Your task to perform on an android device: open app "Gmail" (install if not already installed) Image 0: 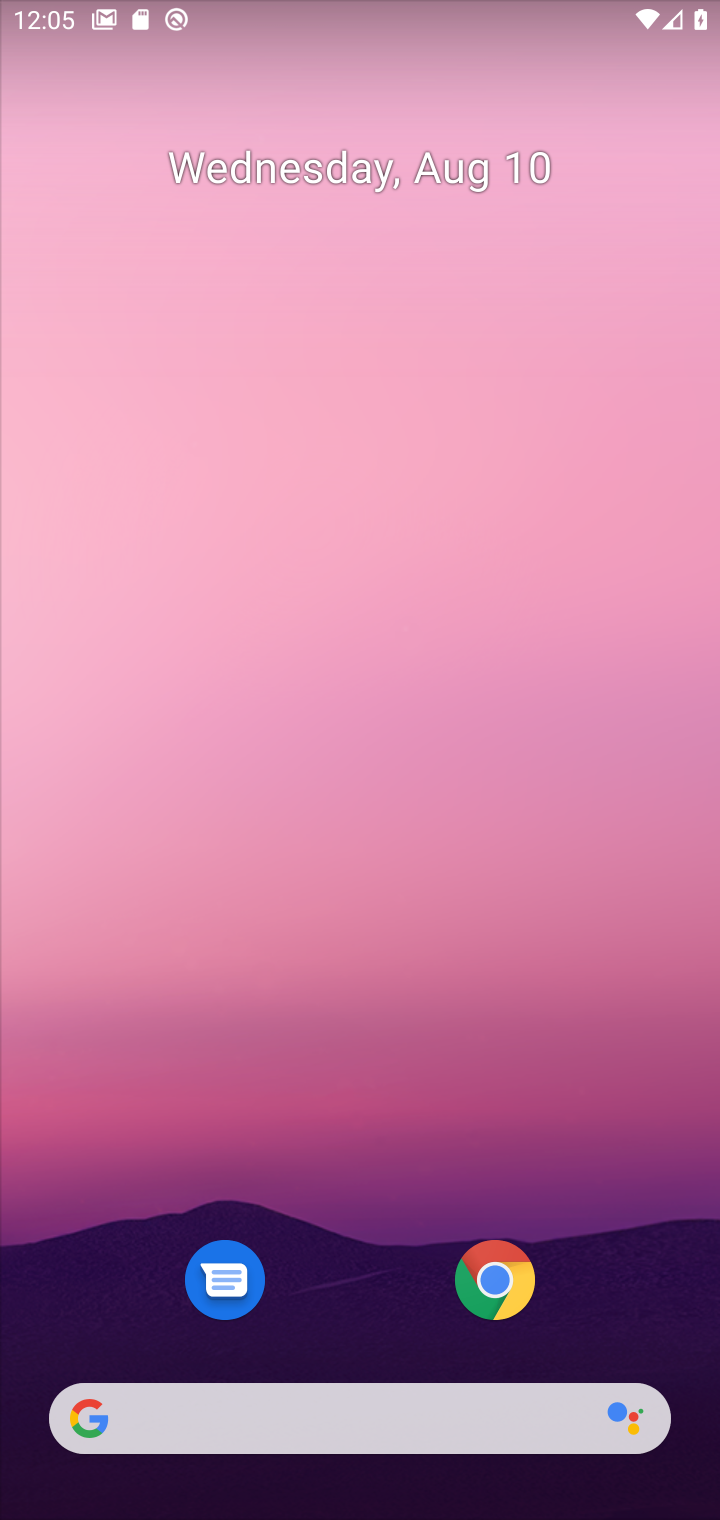
Step 0: drag from (335, 1355) to (597, 25)
Your task to perform on an android device: open app "Gmail" (install if not already installed) Image 1: 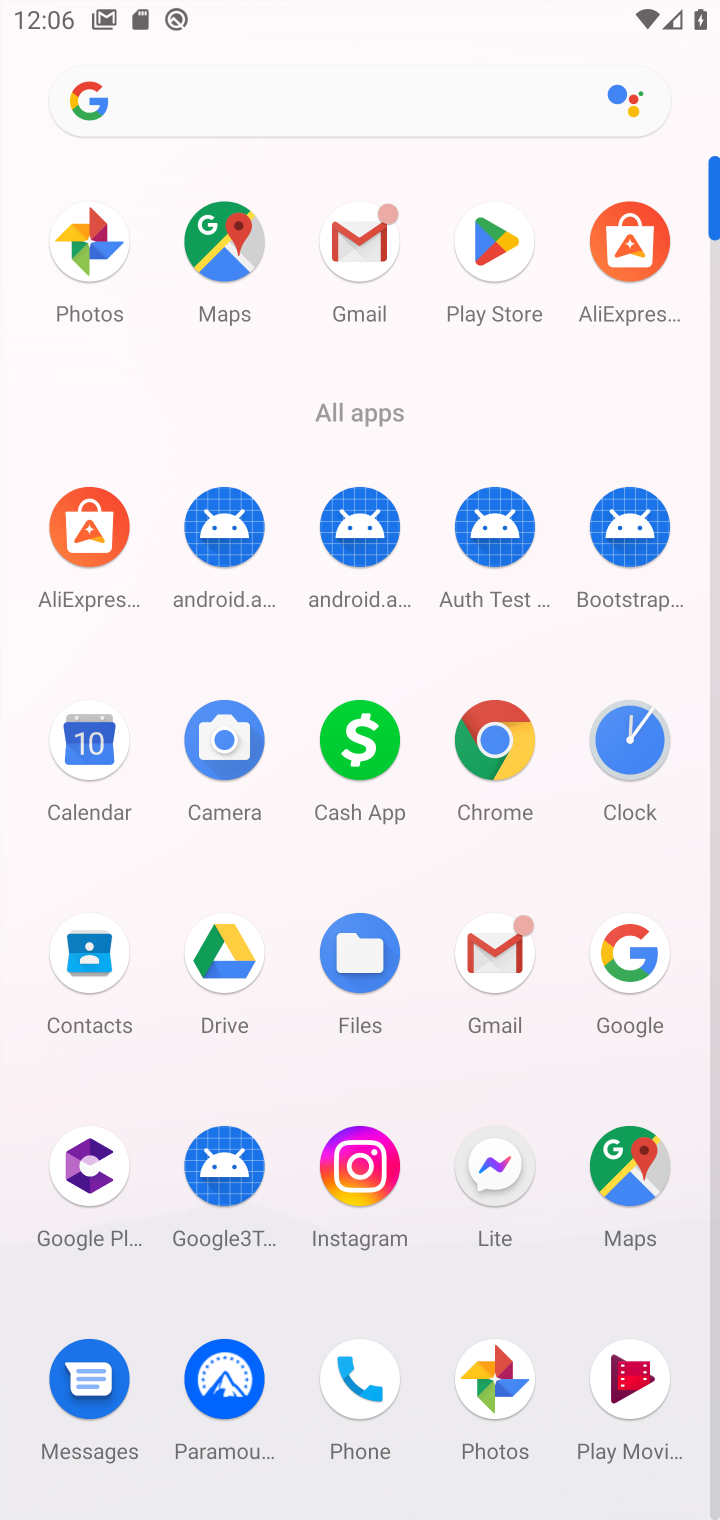
Step 1: click (361, 230)
Your task to perform on an android device: open app "Gmail" (install if not already installed) Image 2: 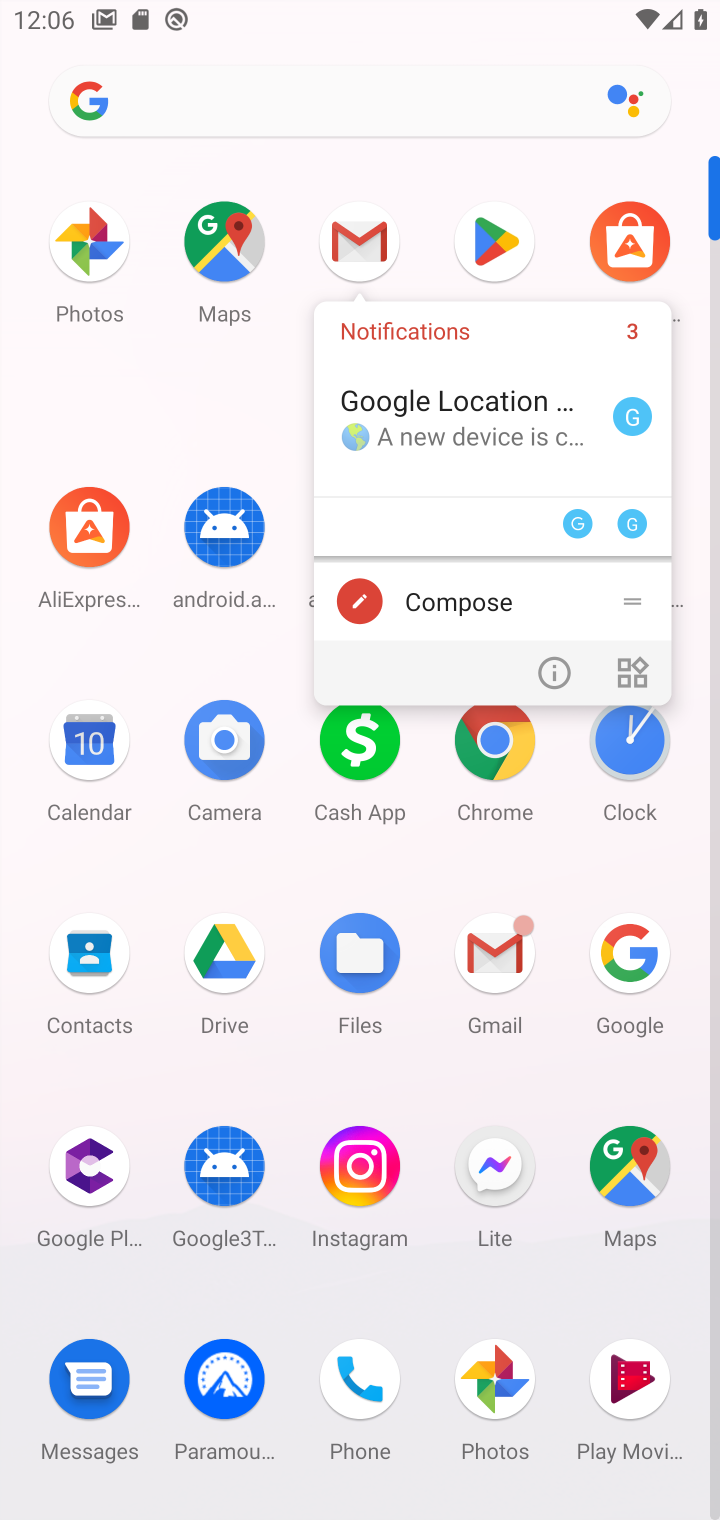
Step 2: click (353, 239)
Your task to perform on an android device: open app "Gmail" (install if not already installed) Image 3: 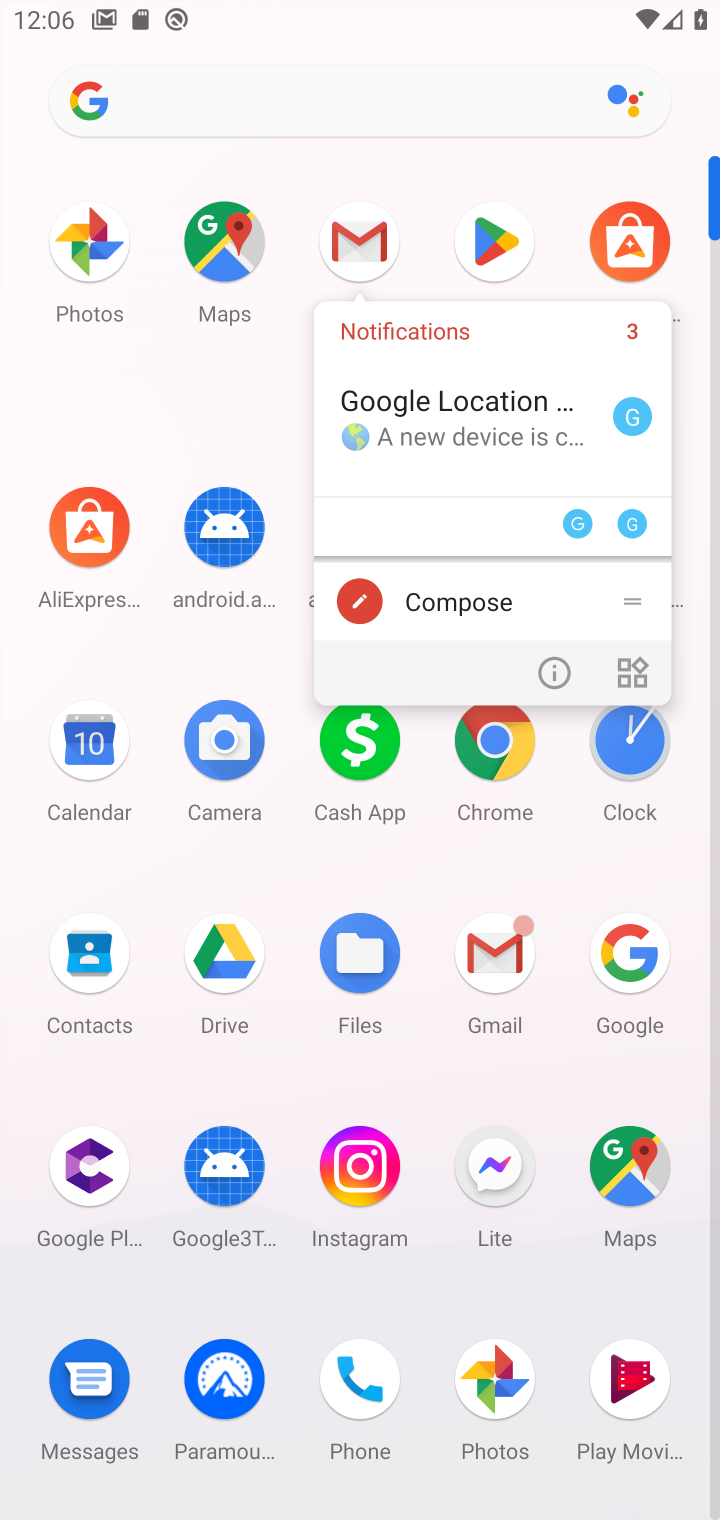
Step 3: click (353, 239)
Your task to perform on an android device: open app "Gmail" (install if not already installed) Image 4: 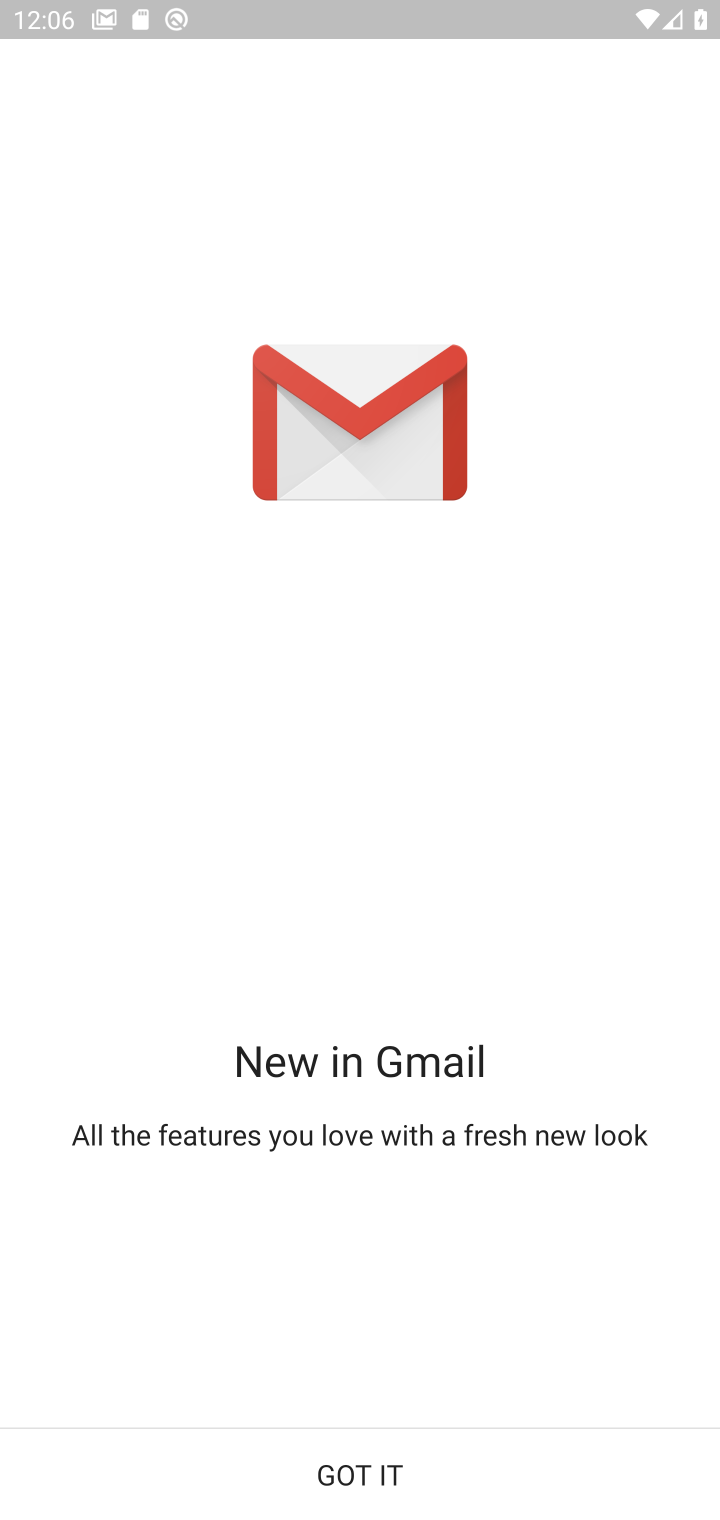
Step 4: task complete